Your task to perform on an android device: Go to sound settings Image 0: 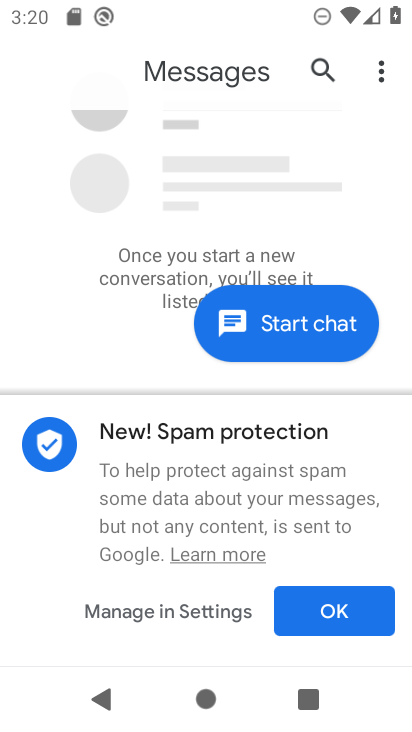
Step 0: press home button
Your task to perform on an android device: Go to sound settings Image 1: 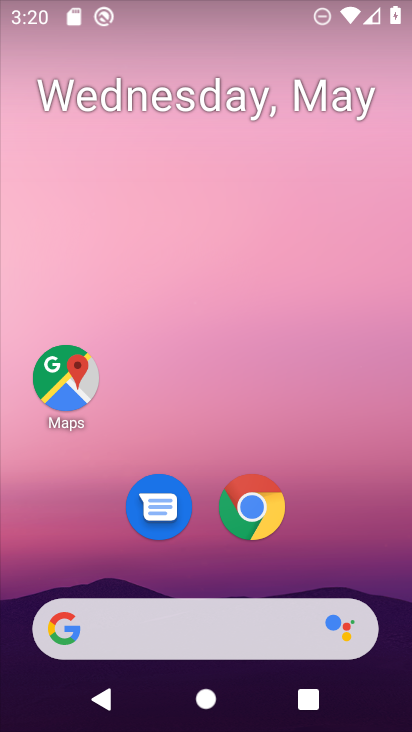
Step 1: drag from (206, 562) to (251, 79)
Your task to perform on an android device: Go to sound settings Image 2: 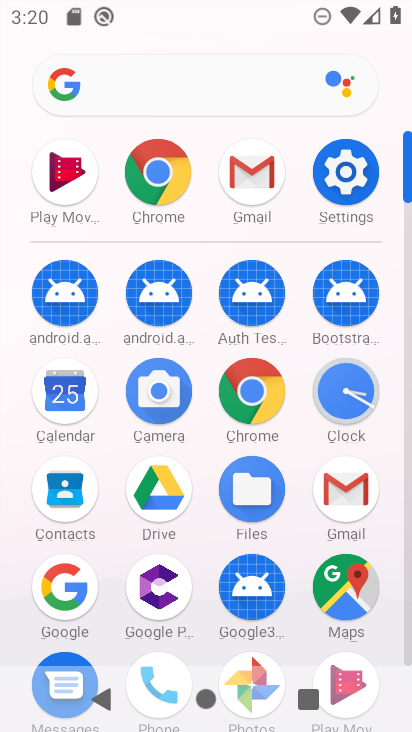
Step 2: click (349, 162)
Your task to perform on an android device: Go to sound settings Image 3: 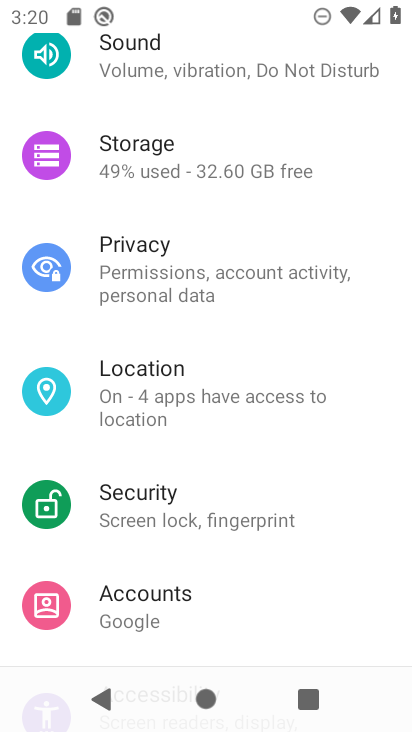
Step 3: drag from (195, 253) to (205, 520)
Your task to perform on an android device: Go to sound settings Image 4: 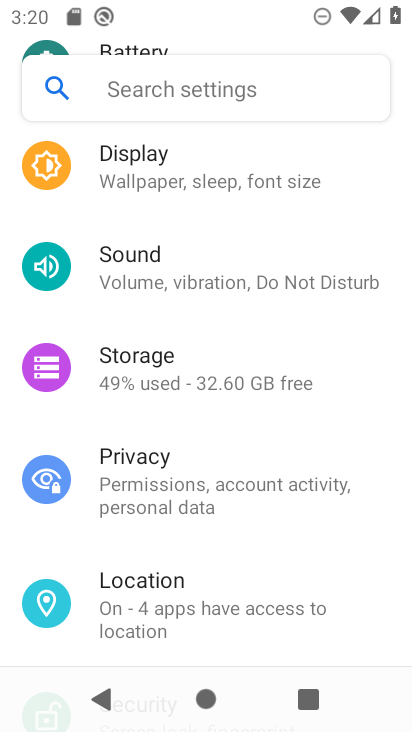
Step 4: click (153, 280)
Your task to perform on an android device: Go to sound settings Image 5: 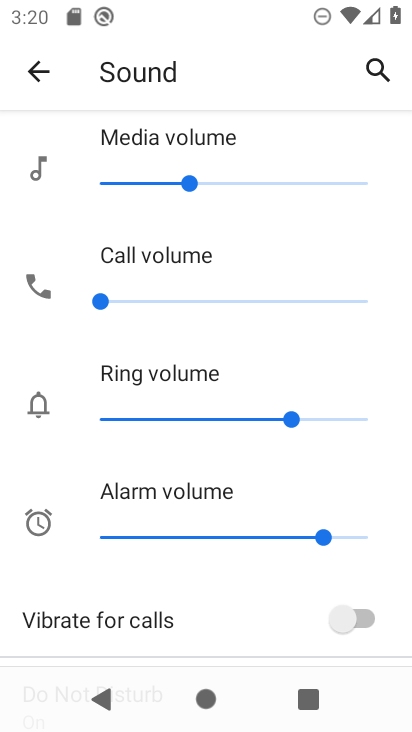
Step 5: task complete